Your task to perform on an android device: turn off sleep mode Image 0: 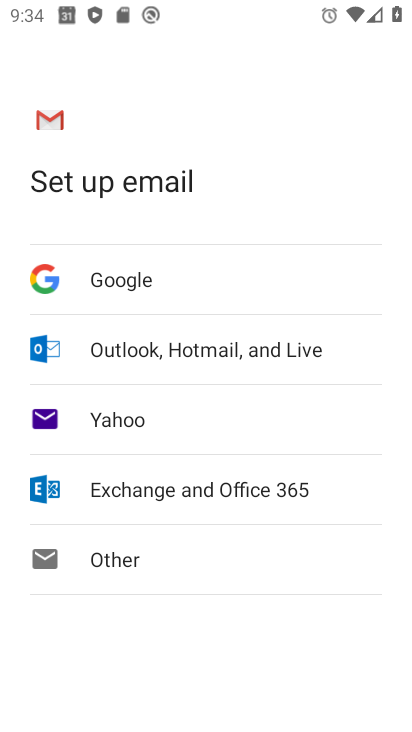
Step 0: press home button
Your task to perform on an android device: turn off sleep mode Image 1: 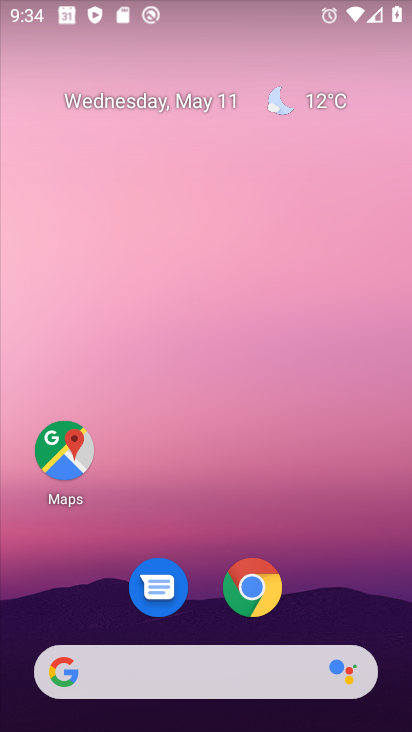
Step 1: drag from (363, 616) to (338, 19)
Your task to perform on an android device: turn off sleep mode Image 2: 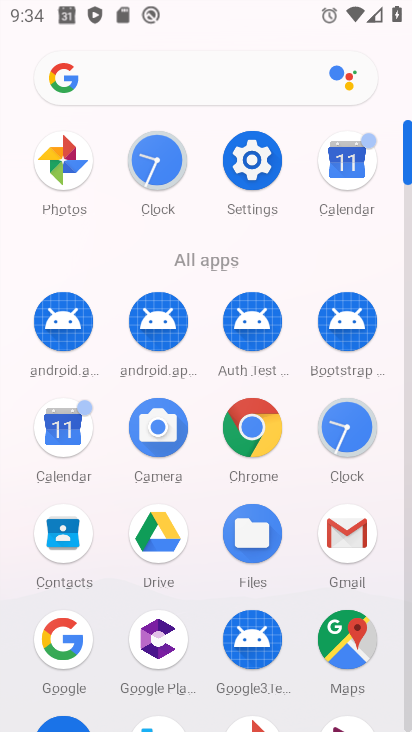
Step 2: click (257, 174)
Your task to perform on an android device: turn off sleep mode Image 3: 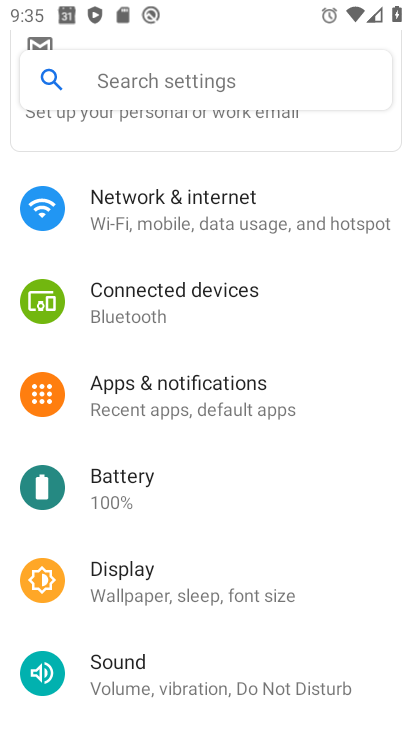
Step 3: click (162, 604)
Your task to perform on an android device: turn off sleep mode Image 4: 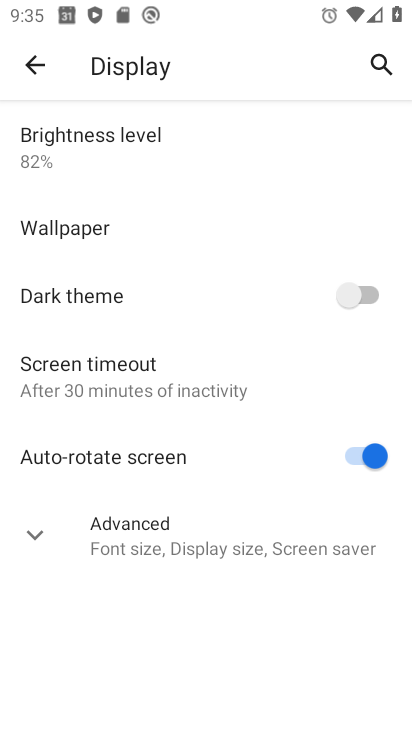
Step 4: click (40, 539)
Your task to perform on an android device: turn off sleep mode Image 5: 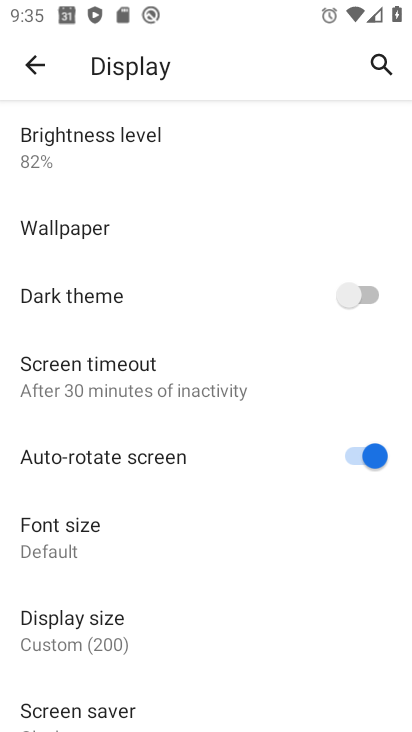
Step 5: task complete